Your task to perform on an android device: turn smart compose on in the gmail app Image 0: 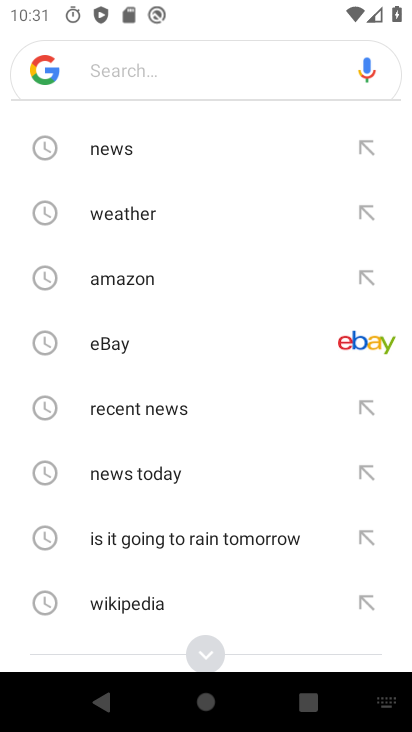
Step 0: press back button
Your task to perform on an android device: turn smart compose on in the gmail app Image 1: 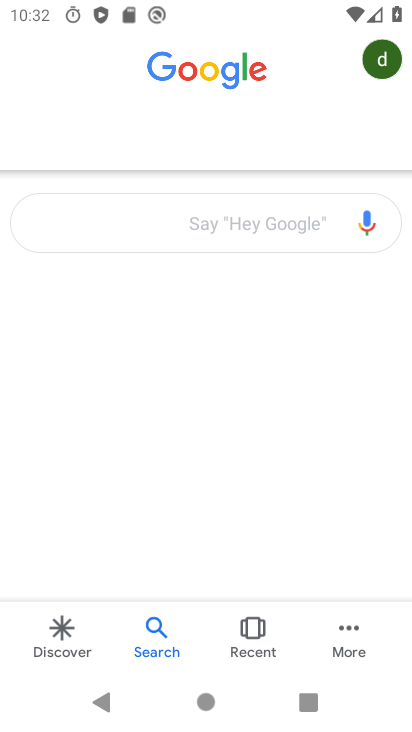
Step 1: press back button
Your task to perform on an android device: turn smart compose on in the gmail app Image 2: 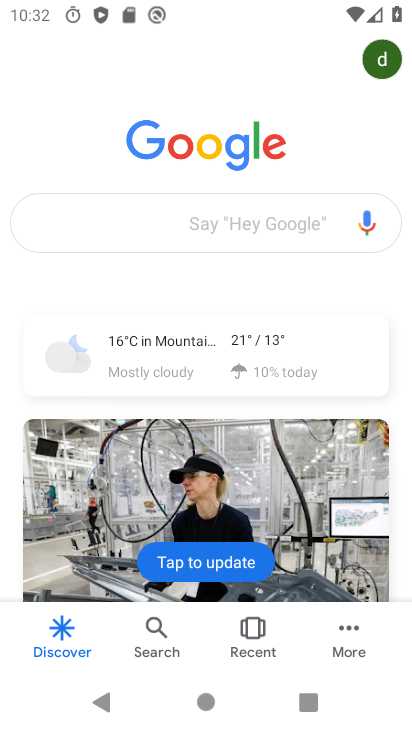
Step 2: press back button
Your task to perform on an android device: turn smart compose on in the gmail app Image 3: 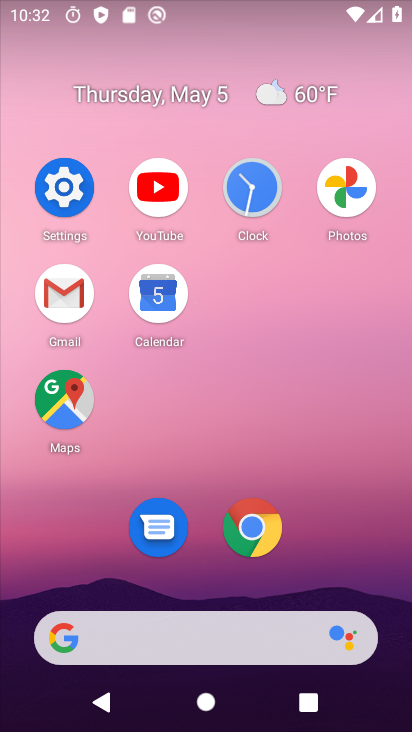
Step 3: click (83, 294)
Your task to perform on an android device: turn smart compose on in the gmail app Image 4: 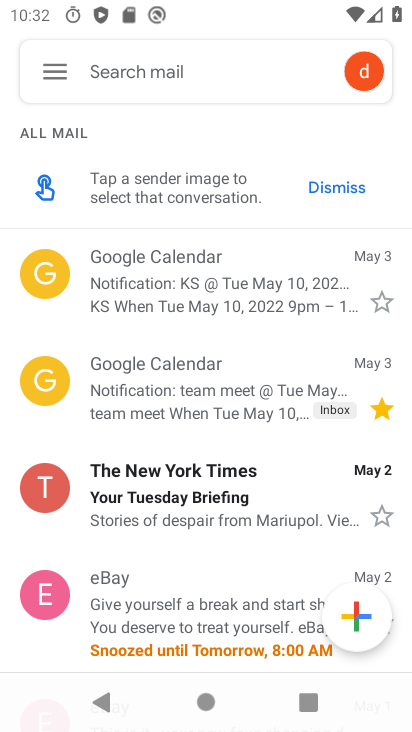
Step 4: click (53, 89)
Your task to perform on an android device: turn smart compose on in the gmail app Image 5: 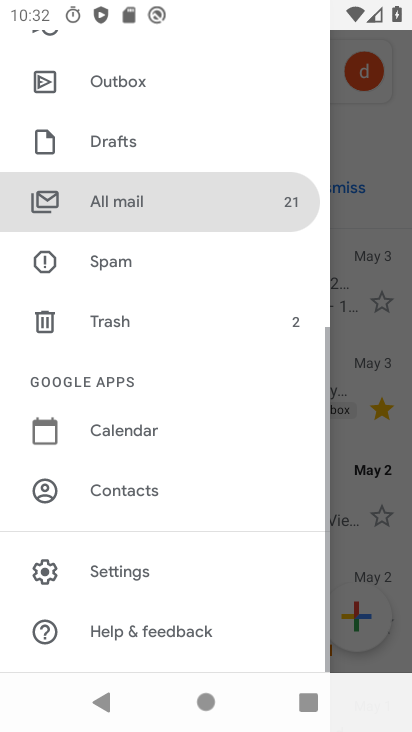
Step 5: drag from (165, 503) to (180, 275)
Your task to perform on an android device: turn smart compose on in the gmail app Image 6: 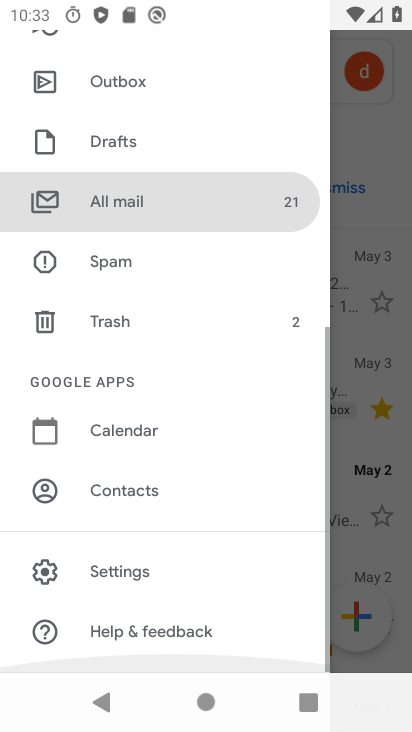
Step 6: click (183, 553)
Your task to perform on an android device: turn smart compose on in the gmail app Image 7: 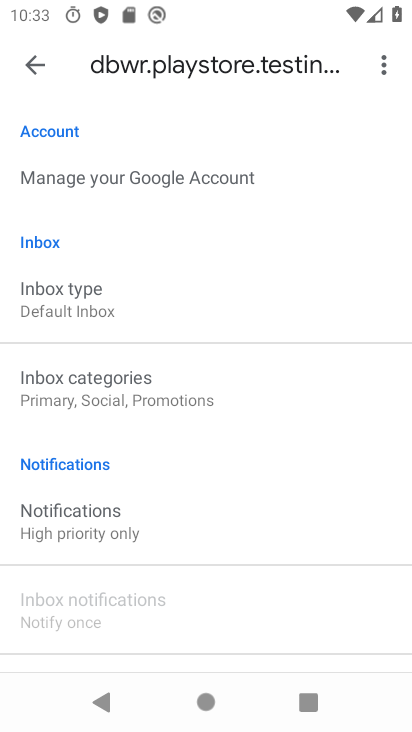
Step 7: task complete